Your task to perform on an android device: View the shopping cart on bestbuy.com. Search for "amazon basics triple a" on bestbuy.com, select the first entry, and add it to the cart. Image 0: 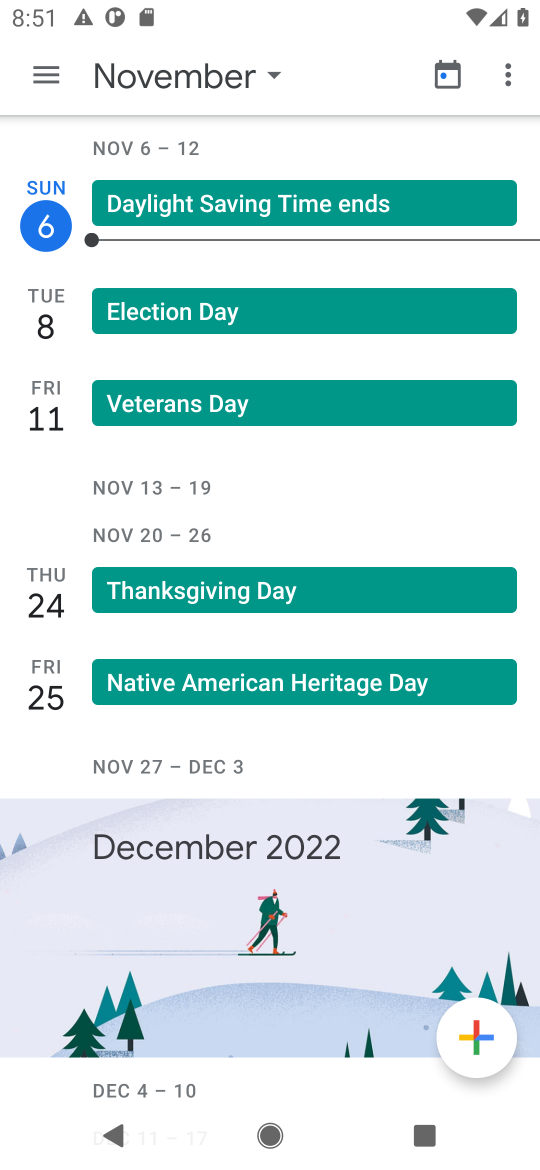
Step 0: press home button
Your task to perform on an android device: View the shopping cart on bestbuy.com. Search for "amazon basics triple a" on bestbuy.com, select the first entry, and add it to the cart. Image 1: 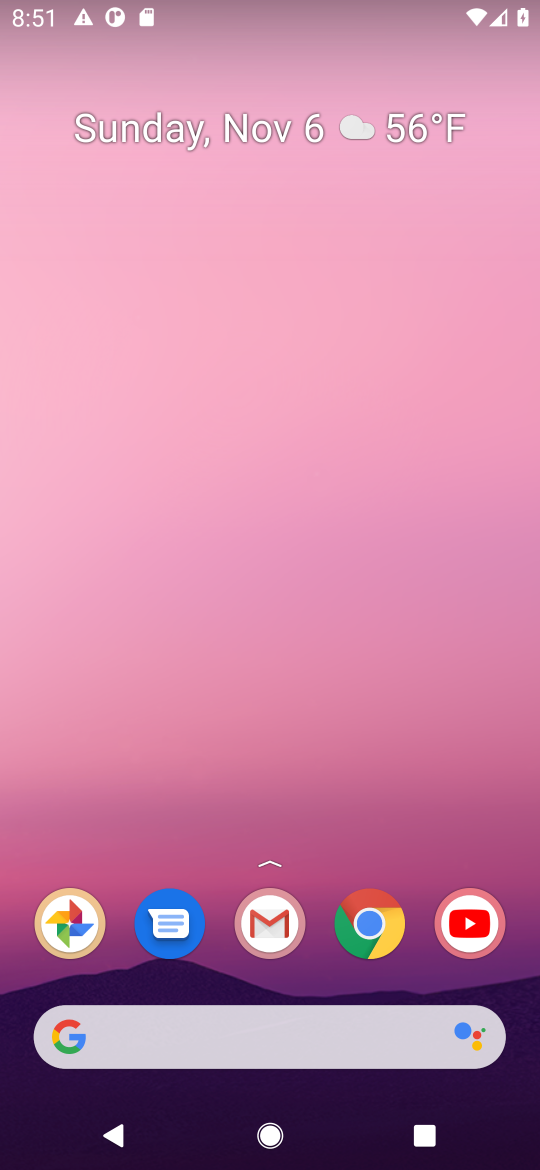
Step 1: click (383, 935)
Your task to perform on an android device: View the shopping cart on bestbuy.com. Search for "amazon basics triple a" on bestbuy.com, select the first entry, and add it to the cart. Image 2: 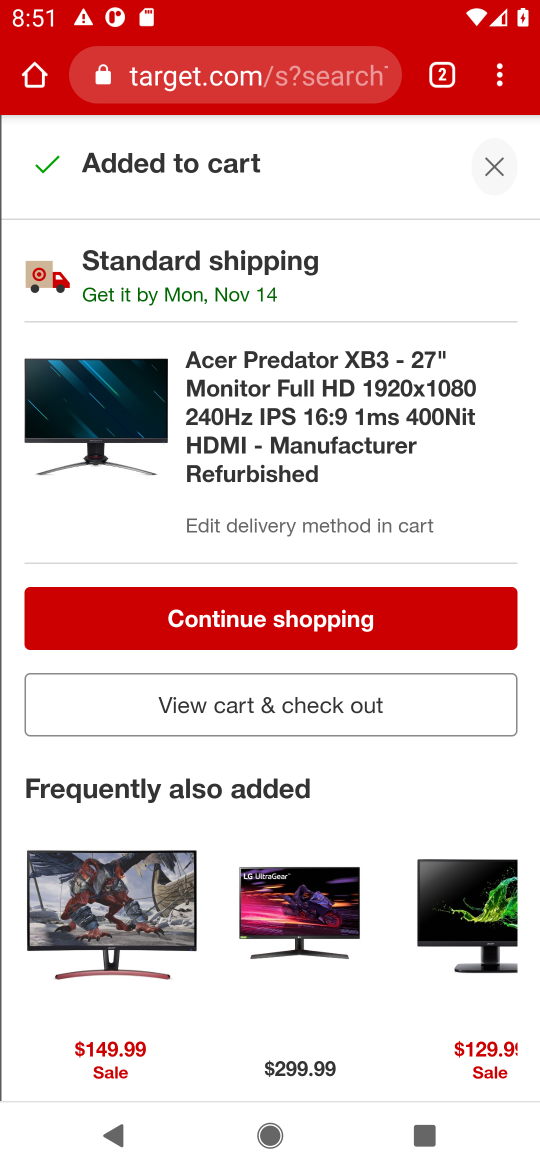
Step 2: click (245, 95)
Your task to perform on an android device: View the shopping cart on bestbuy.com. Search for "amazon basics triple a" on bestbuy.com, select the first entry, and add it to the cart. Image 3: 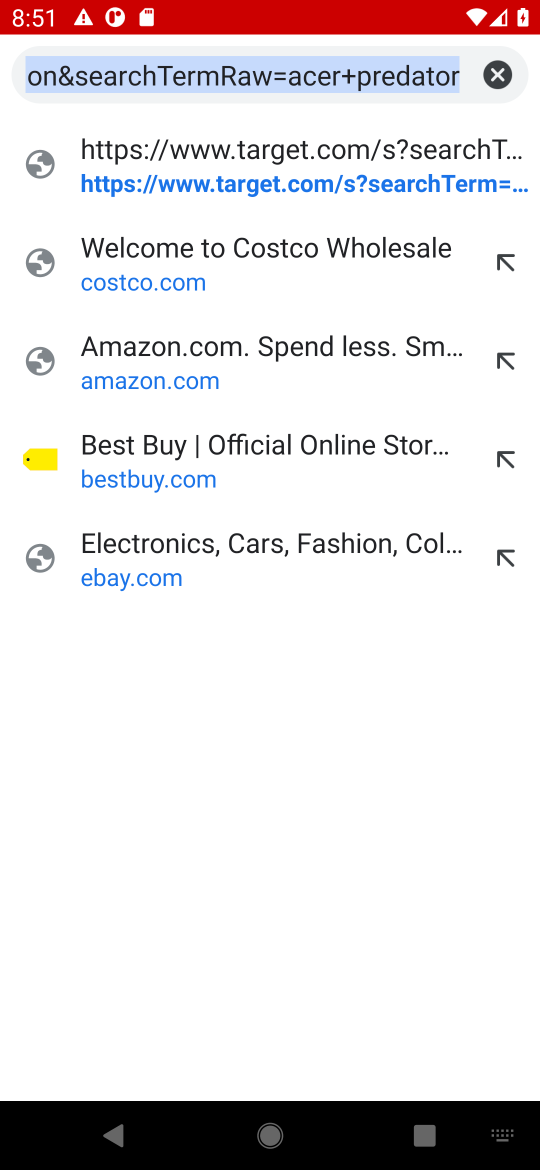
Step 3: click (99, 483)
Your task to perform on an android device: View the shopping cart on bestbuy.com. Search for "amazon basics triple a" on bestbuy.com, select the first entry, and add it to the cart. Image 4: 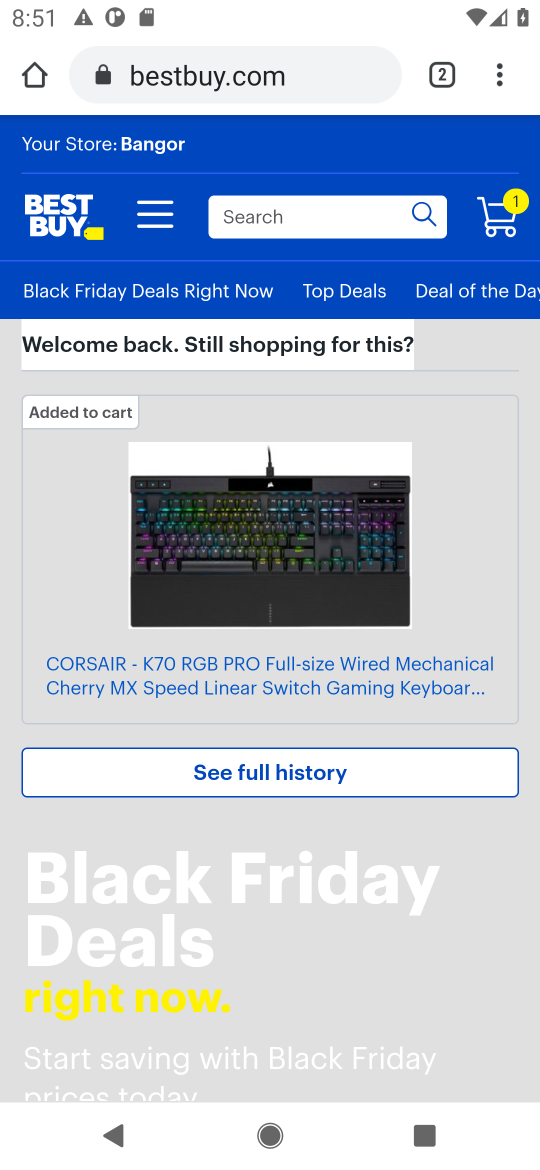
Step 4: click (489, 220)
Your task to perform on an android device: View the shopping cart on bestbuy.com. Search for "amazon basics triple a" on bestbuy.com, select the first entry, and add it to the cart. Image 5: 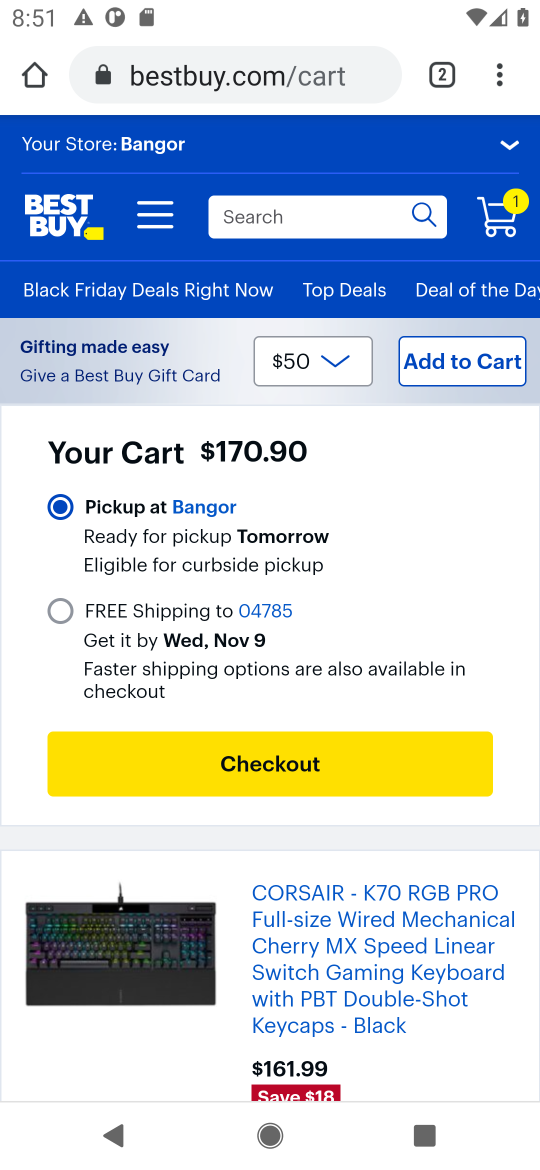
Step 5: click (279, 222)
Your task to perform on an android device: View the shopping cart on bestbuy.com. Search for "amazon basics triple a" on bestbuy.com, select the first entry, and add it to the cart. Image 6: 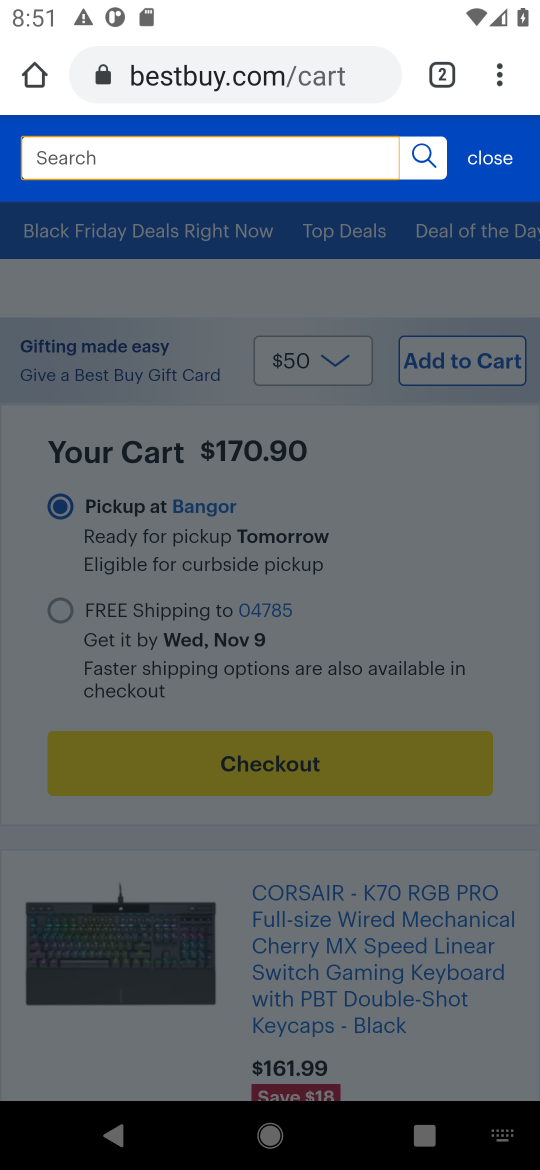
Step 6: type "amazon basics triple a"
Your task to perform on an android device: View the shopping cart on bestbuy.com. Search for "amazon basics triple a" on bestbuy.com, select the first entry, and add it to the cart. Image 7: 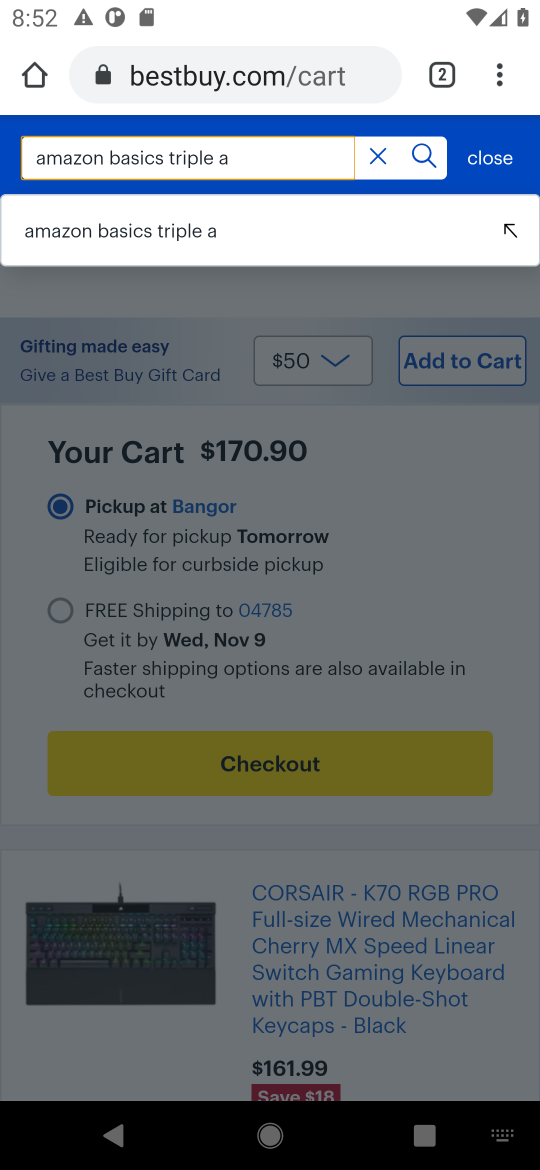
Step 7: click (428, 164)
Your task to perform on an android device: View the shopping cart on bestbuy.com. Search for "amazon basics triple a" on bestbuy.com, select the first entry, and add it to the cart. Image 8: 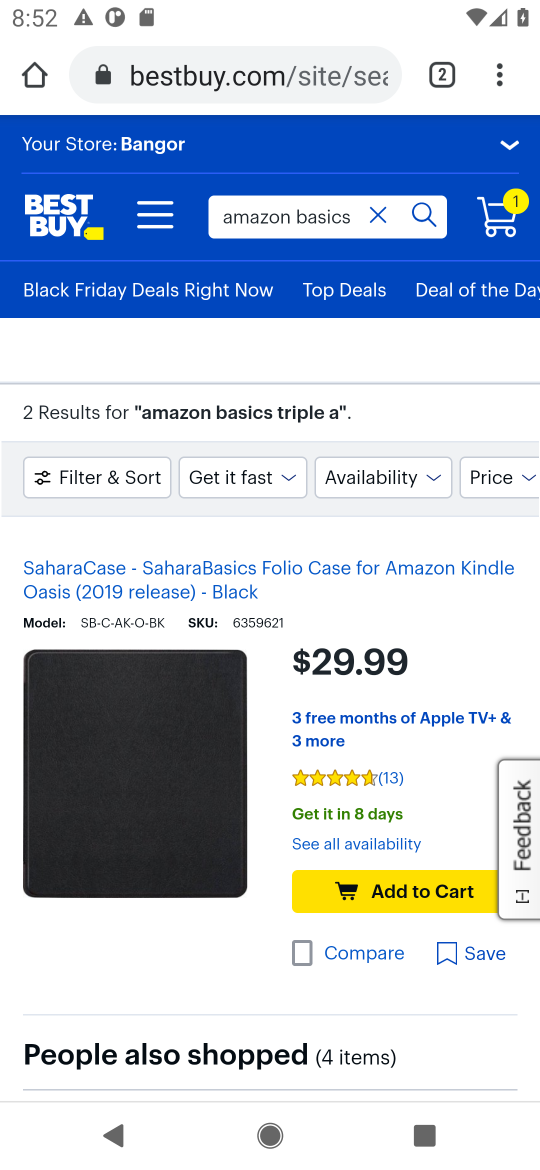
Step 8: task complete